Your task to perform on an android device: Open Wikipedia Image 0: 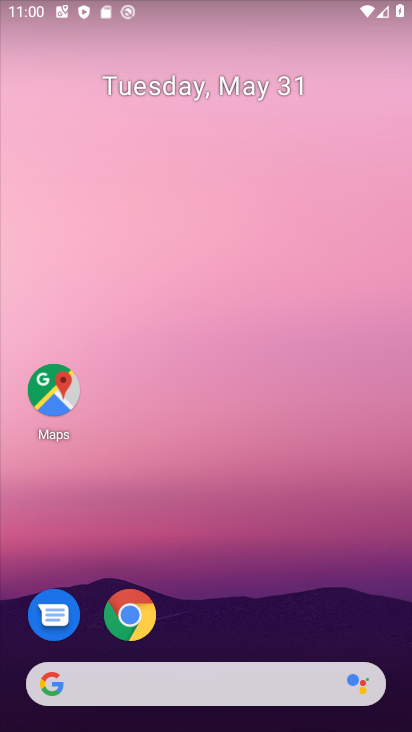
Step 0: task complete